Your task to perform on an android device: Go to Google maps Image 0: 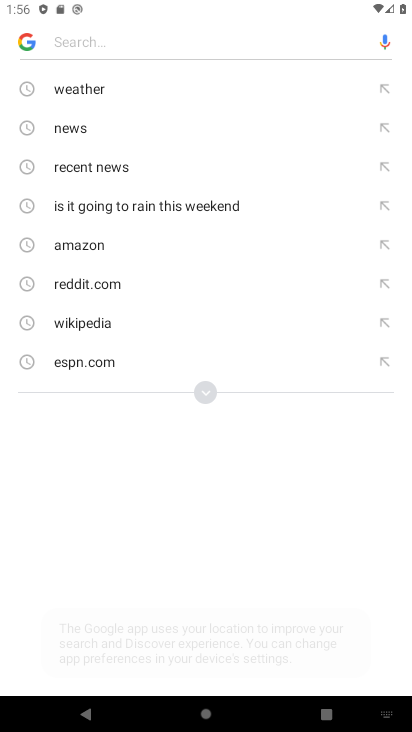
Step 0: press back button
Your task to perform on an android device: Go to Google maps Image 1: 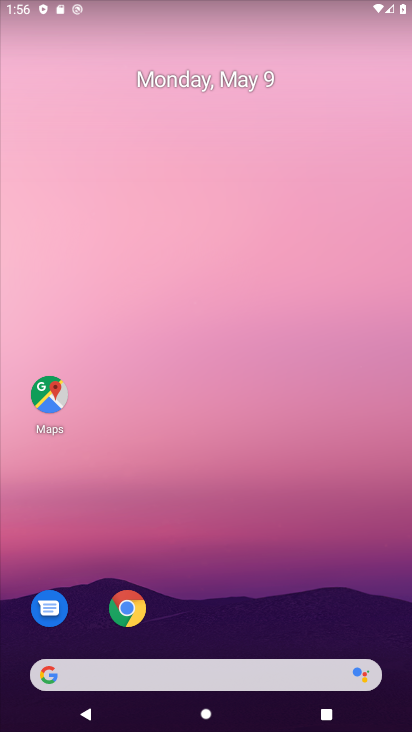
Step 1: click (59, 397)
Your task to perform on an android device: Go to Google maps Image 2: 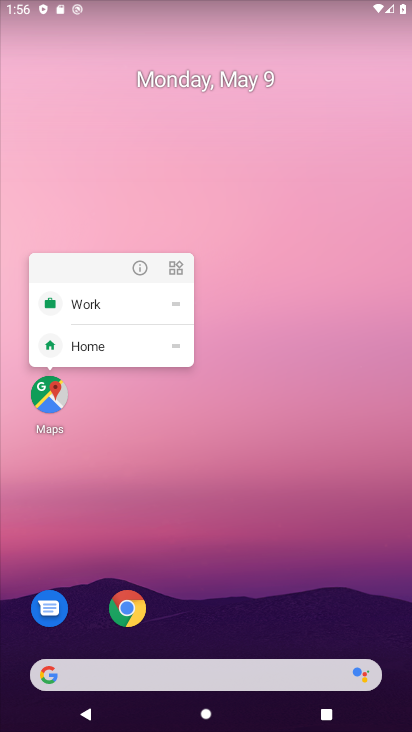
Step 2: click (59, 397)
Your task to perform on an android device: Go to Google maps Image 3: 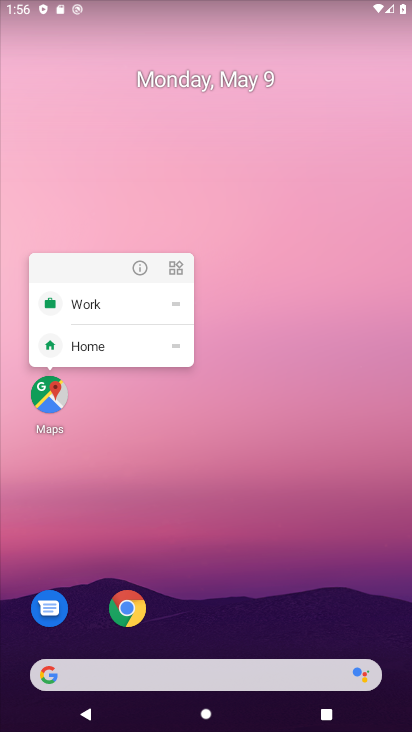
Step 3: click (59, 397)
Your task to perform on an android device: Go to Google maps Image 4: 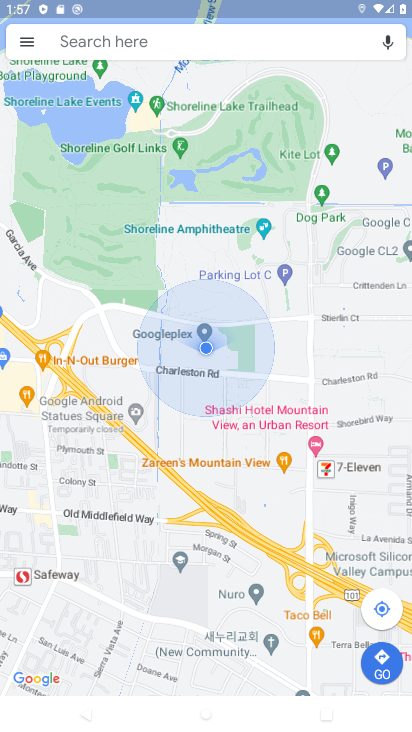
Step 4: task complete